Your task to perform on an android device: Turn on the flashlight Image 0: 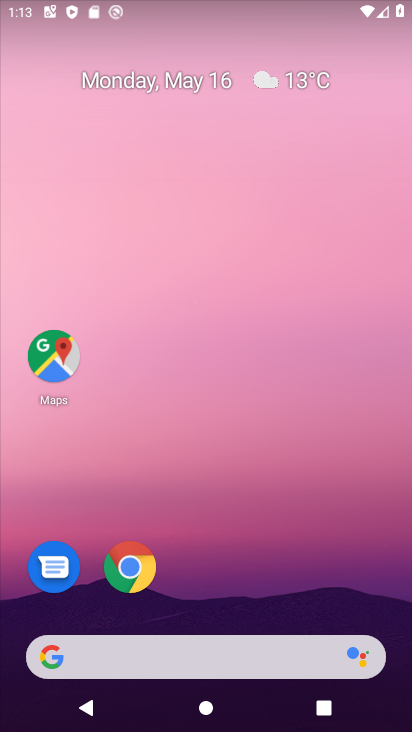
Step 0: drag from (345, 45) to (303, 533)
Your task to perform on an android device: Turn on the flashlight Image 1: 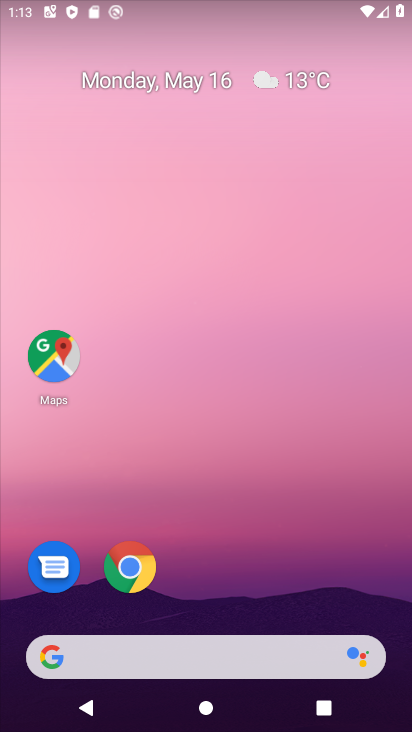
Step 1: task complete